Your task to perform on an android device: Go to Google Image 0: 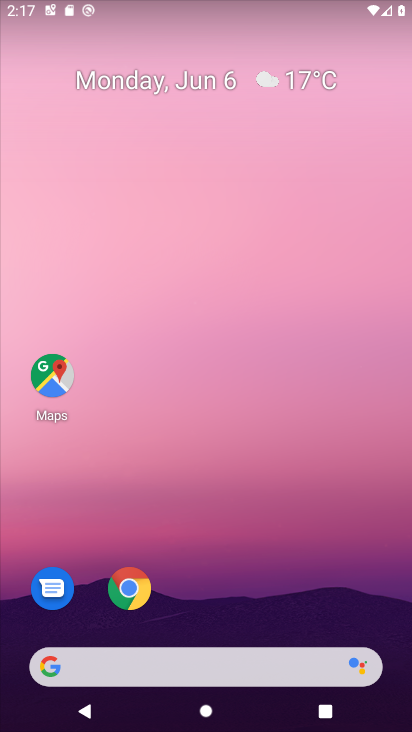
Step 0: click (342, 33)
Your task to perform on an android device: Go to Google Image 1: 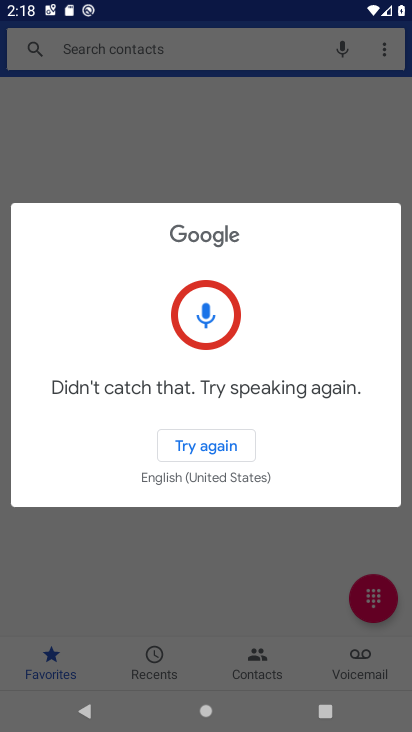
Step 1: press home button
Your task to perform on an android device: Go to Google Image 2: 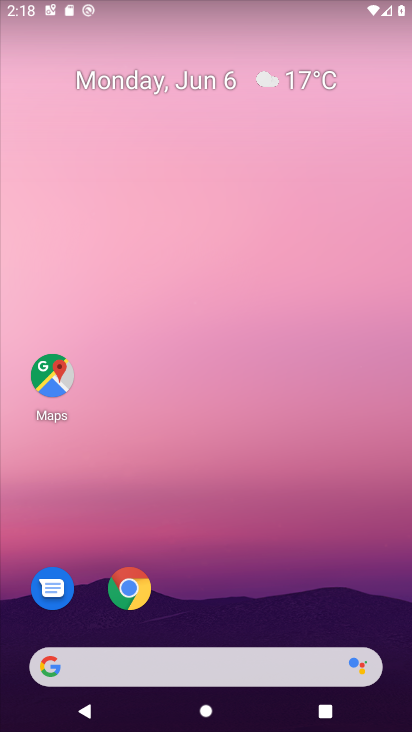
Step 2: drag from (208, 513) to (243, 0)
Your task to perform on an android device: Go to Google Image 3: 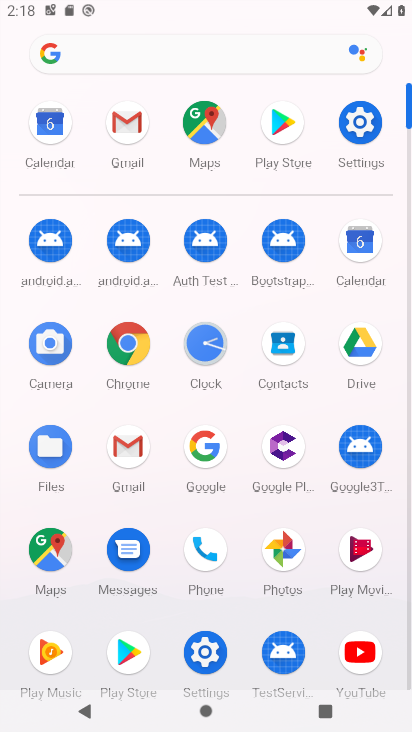
Step 3: click (217, 447)
Your task to perform on an android device: Go to Google Image 4: 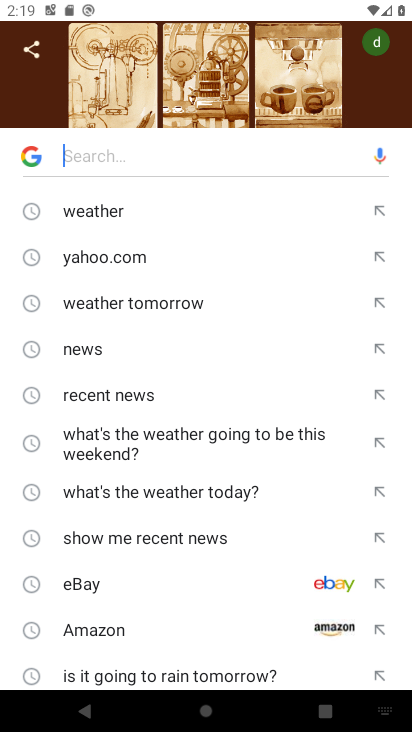
Step 4: task complete